Your task to perform on an android device: check android version Image 0: 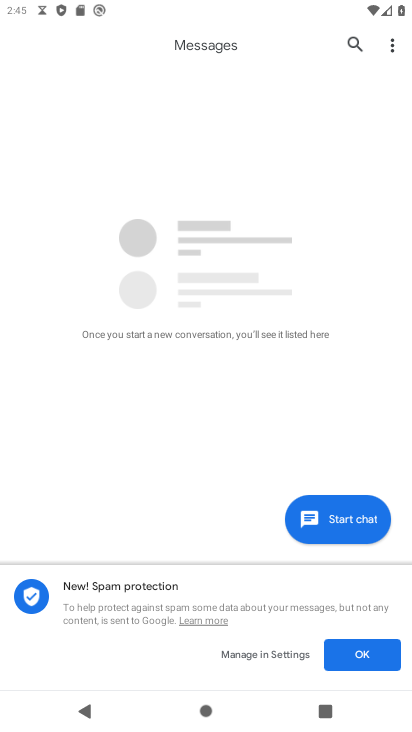
Step 0: press home button
Your task to perform on an android device: check android version Image 1: 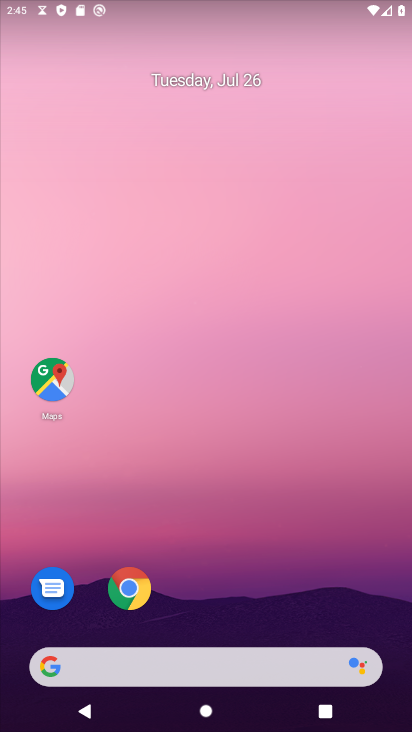
Step 1: drag from (222, 510) to (300, 127)
Your task to perform on an android device: check android version Image 2: 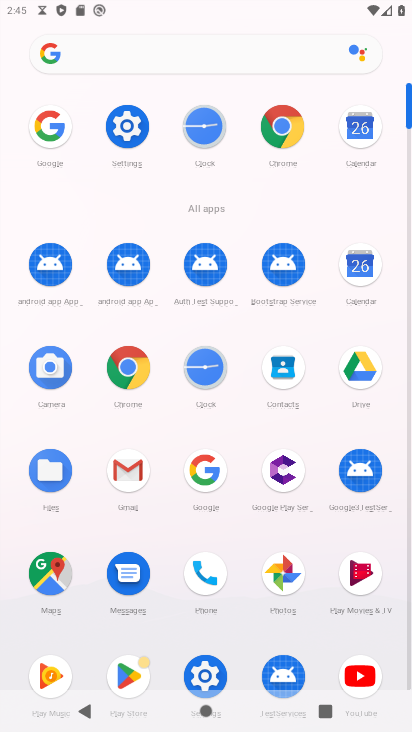
Step 2: click (131, 137)
Your task to perform on an android device: check android version Image 3: 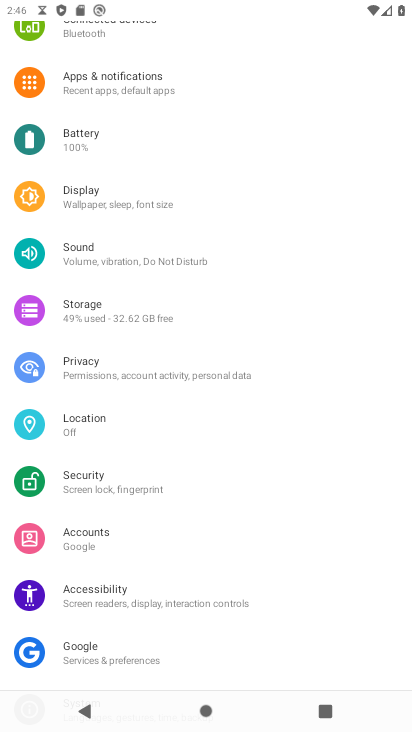
Step 3: drag from (115, 624) to (187, 194)
Your task to perform on an android device: check android version Image 4: 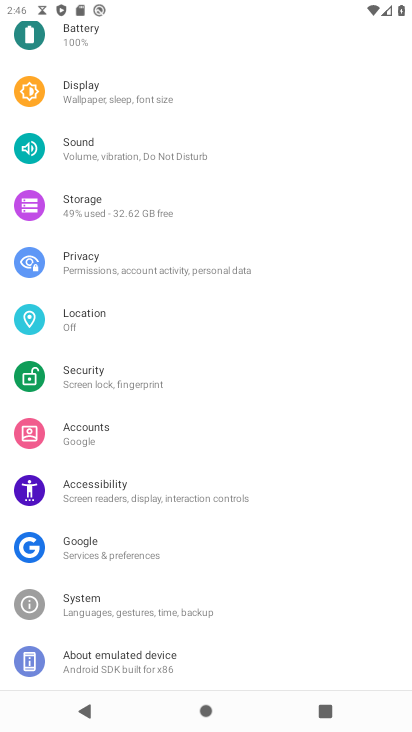
Step 4: click (68, 653)
Your task to perform on an android device: check android version Image 5: 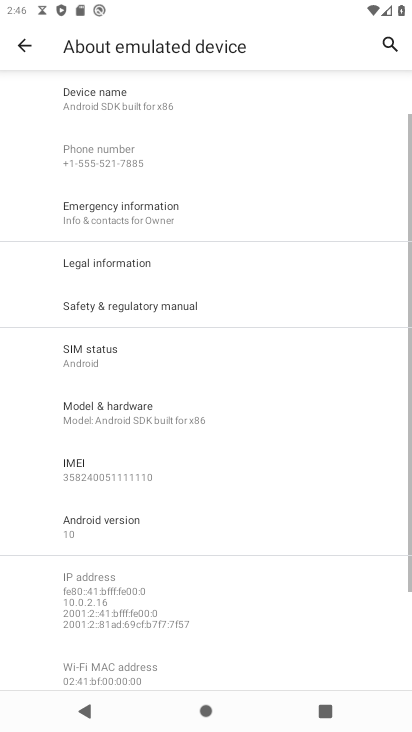
Step 5: click (75, 538)
Your task to perform on an android device: check android version Image 6: 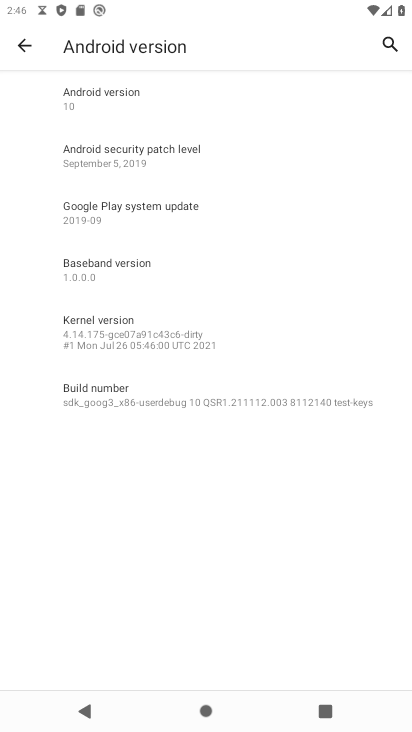
Step 6: task complete